Your task to perform on an android device: turn on javascript in the chrome app Image 0: 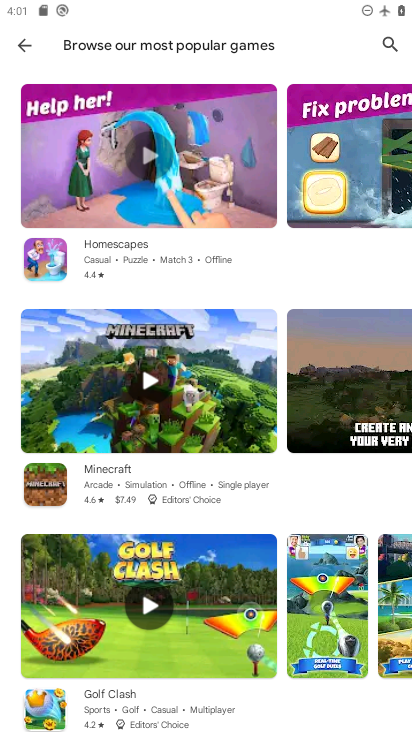
Step 0: press home button
Your task to perform on an android device: turn on javascript in the chrome app Image 1: 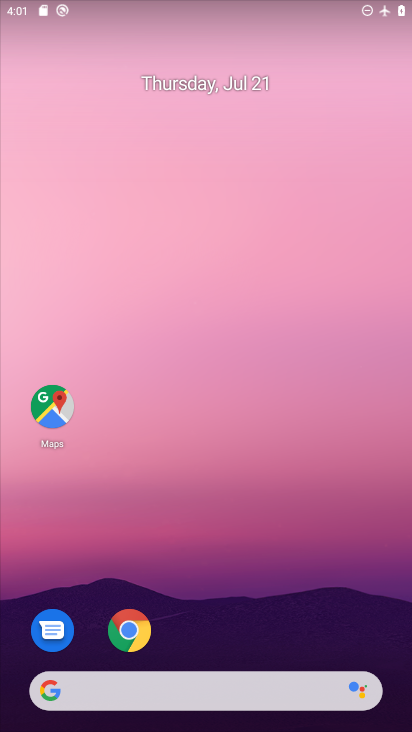
Step 1: drag from (226, 653) to (203, 25)
Your task to perform on an android device: turn on javascript in the chrome app Image 2: 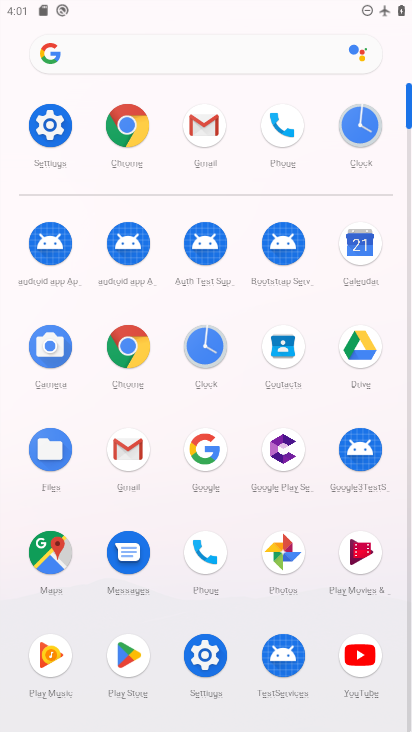
Step 2: click (129, 342)
Your task to perform on an android device: turn on javascript in the chrome app Image 3: 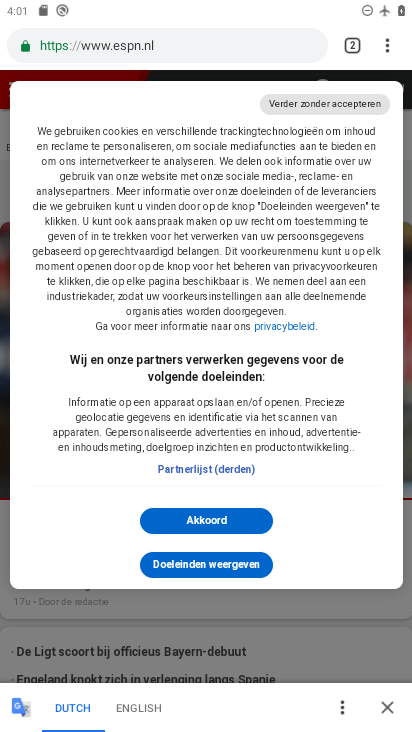
Step 3: drag from (389, 50) to (233, 494)
Your task to perform on an android device: turn on javascript in the chrome app Image 4: 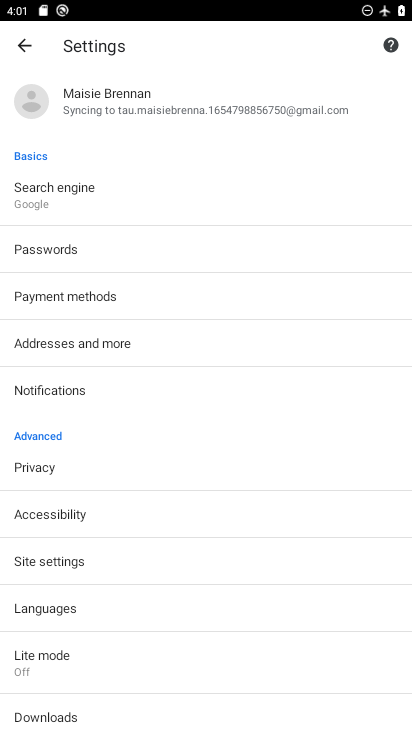
Step 4: click (66, 563)
Your task to perform on an android device: turn on javascript in the chrome app Image 5: 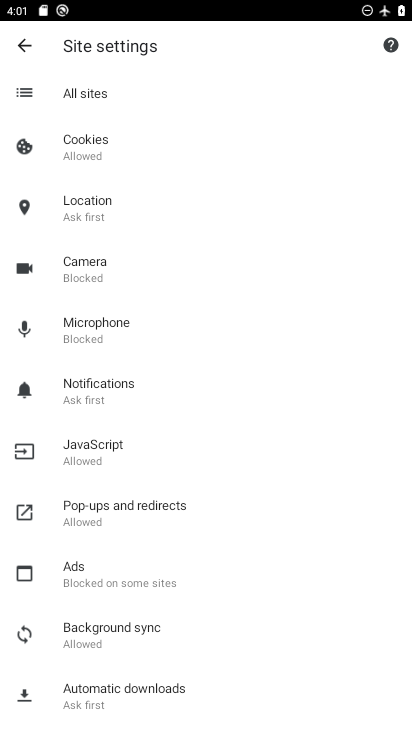
Step 5: click (82, 454)
Your task to perform on an android device: turn on javascript in the chrome app Image 6: 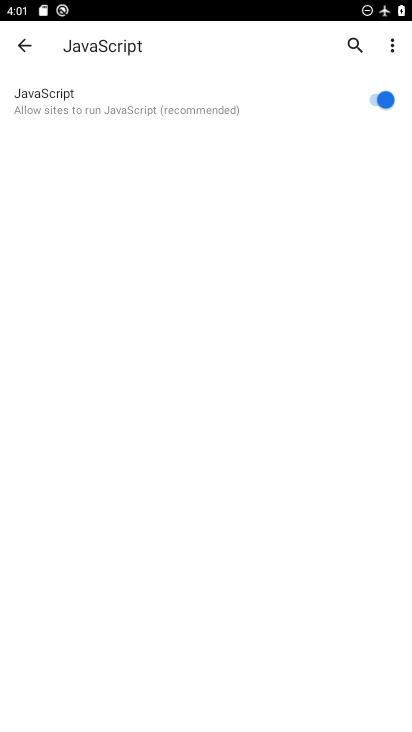
Step 6: task complete